Your task to perform on an android device: Go to Maps Image 0: 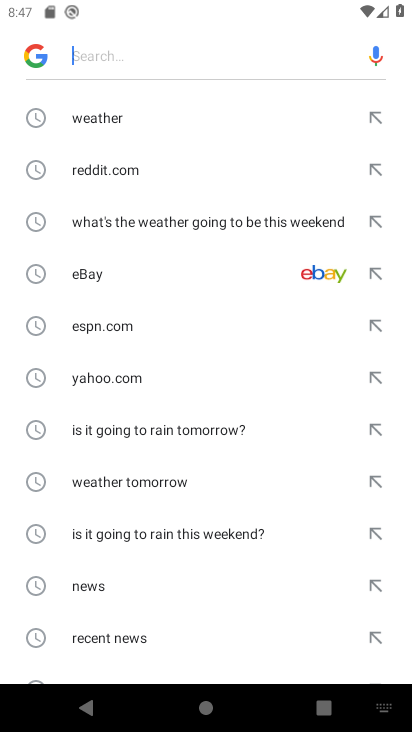
Step 0: press home button
Your task to perform on an android device: Go to Maps Image 1: 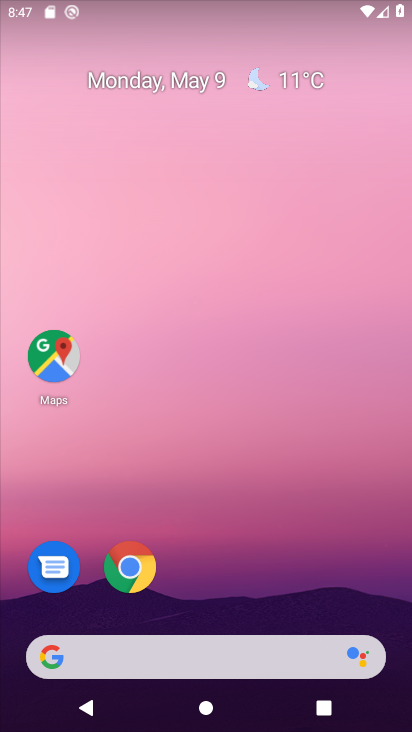
Step 1: click (51, 355)
Your task to perform on an android device: Go to Maps Image 2: 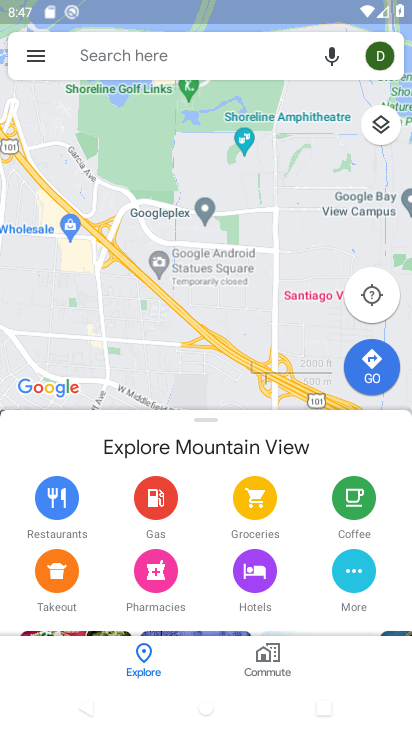
Step 2: task complete